Your task to perform on an android device: turn on improve location accuracy Image 0: 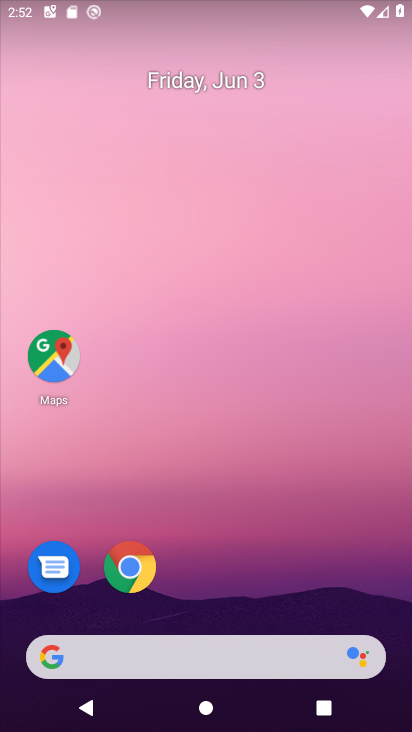
Step 0: drag from (137, 612) to (205, 274)
Your task to perform on an android device: turn on improve location accuracy Image 1: 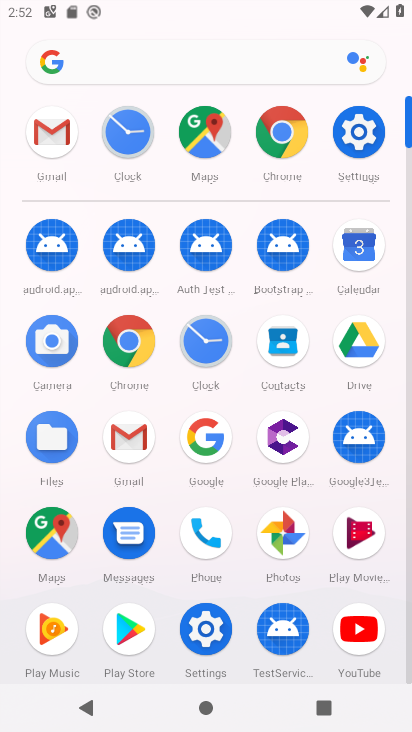
Step 1: click (353, 132)
Your task to perform on an android device: turn on improve location accuracy Image 2: 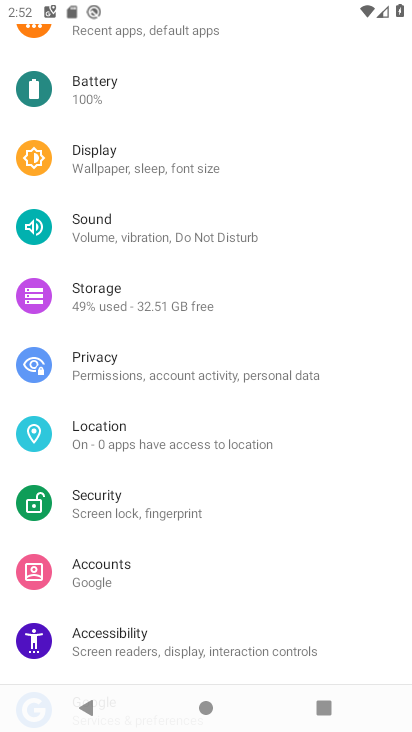
Step 2: drag from (176, 178) to (202, 590)
Your task to perform on an android device: turn on improve location accuracy Image 3: 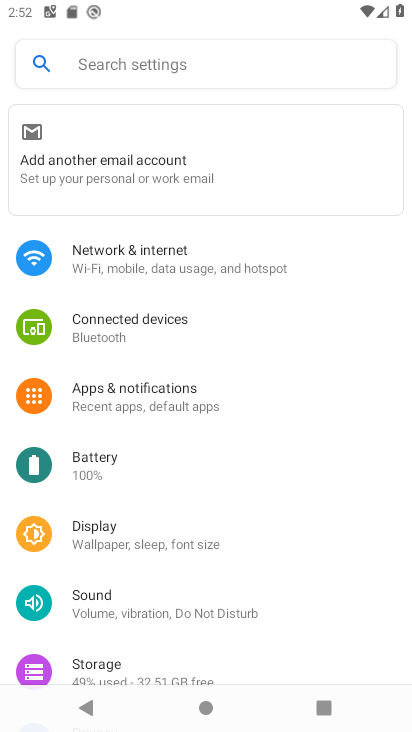
Step 3: drag from (209, 601) to (231, 252)
Your task to perform on an android device: turn on improve location accuracy Image 4: 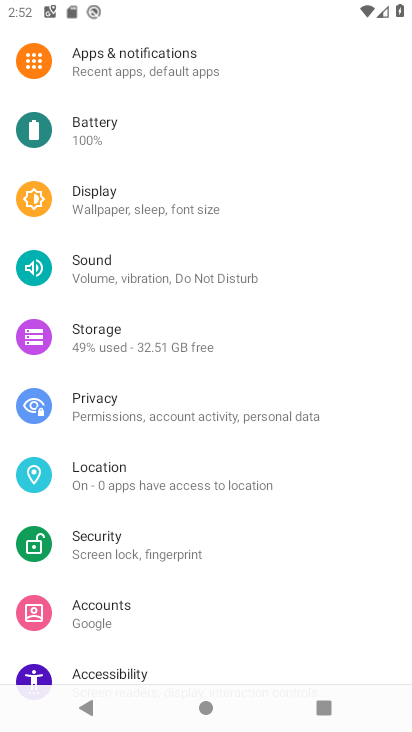
Step 4: click (254, 125)
Your task to perform on an android device: turn on improve location accuracy Image 5: 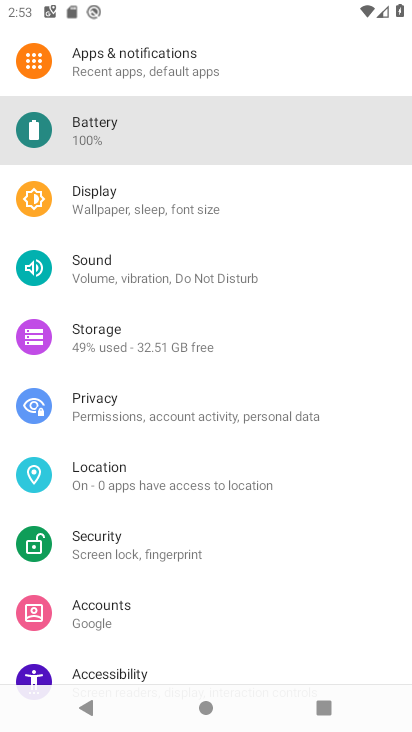
Step 5: drag from (208, 604) to (223, 219)
Your task to perform on an android device: turn on improve location accuracy Image 6: 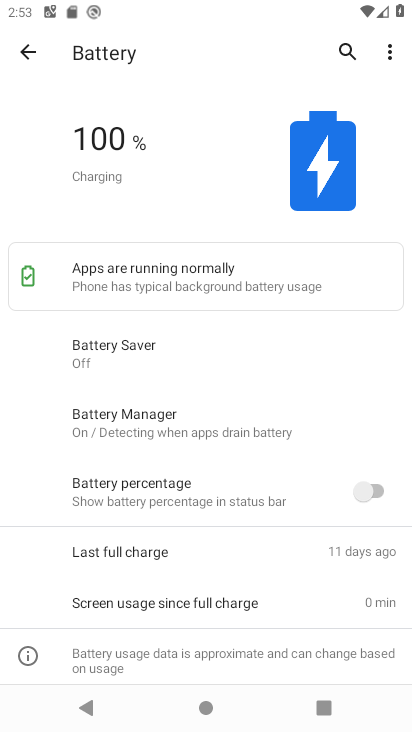
Step 6: click (41, 30)
Your task to perform on an android device: turn on improve location accuracy Image 7: 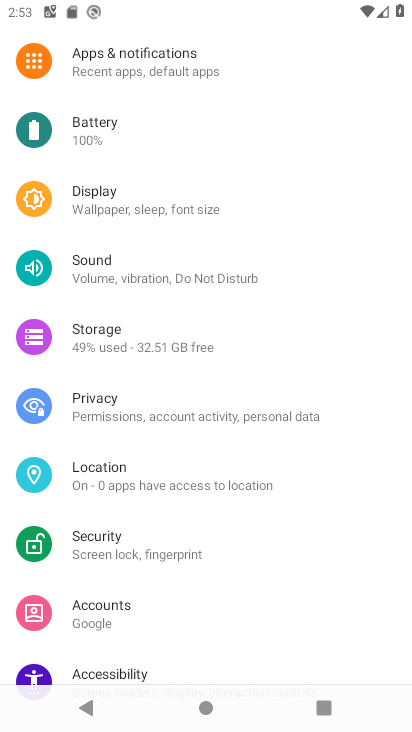
Step 7: click (149, 480)
Your task to perform on an android device: turn on improve location accuracy Image 8: 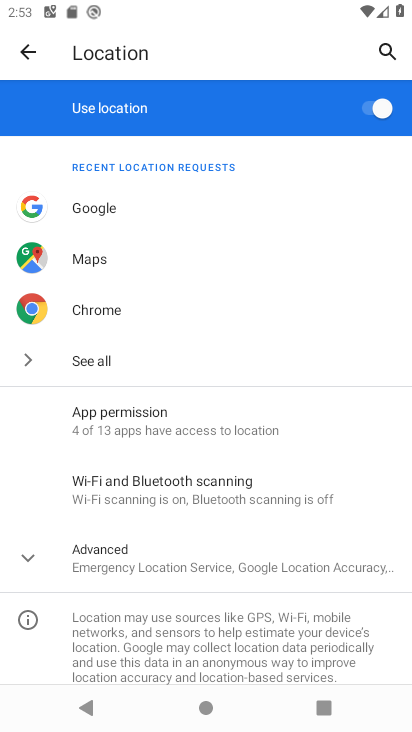
Step 8: click (160, 572)
Your task to perform on an android device: turn on improve location accuracy Image 9: 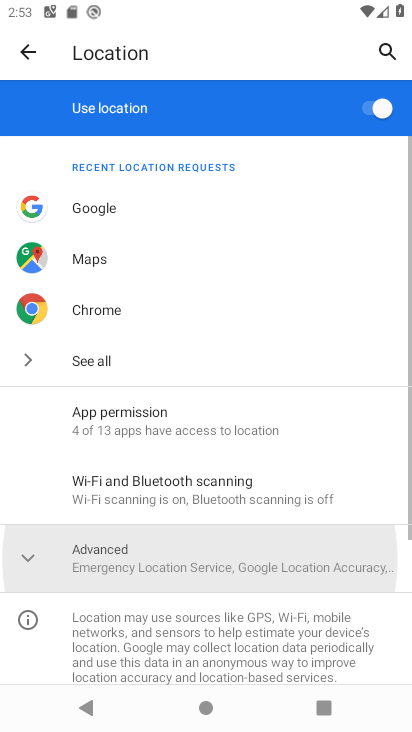
Step 9: click (189, 548)
Your task to perform on an android device: turn on improve location accuracy Image 10: 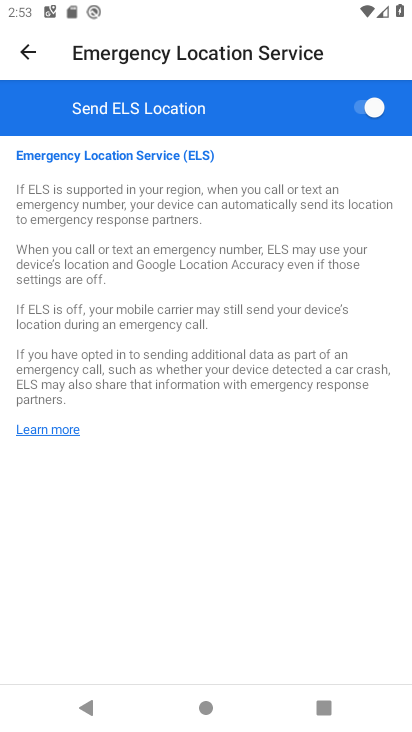
Step 10: click (32, 37)
Your task to perform on an android device: turn on improve location accuracy Image 11: 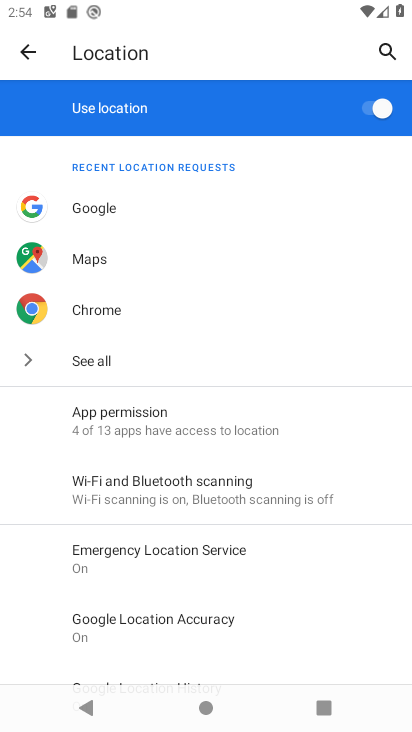
Step 11: click (223, 627)
Your task to perform on an android device: turn on improve location accuracy Image 12: 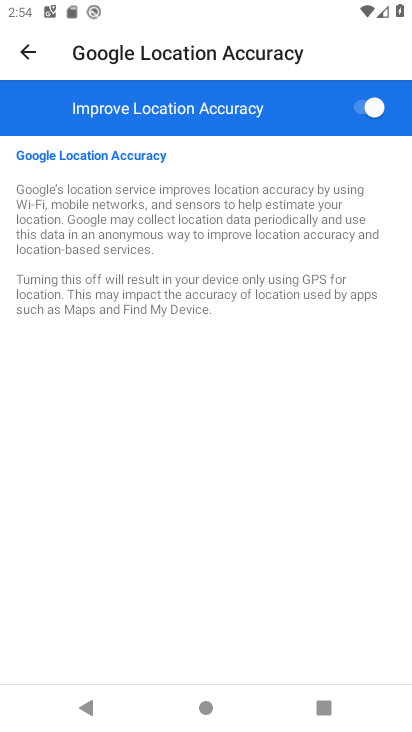
Step 12: task complete